Your task to perform on an android device: Clear all items from cart on target. Add "macbook air" to the cart on target Image 0: 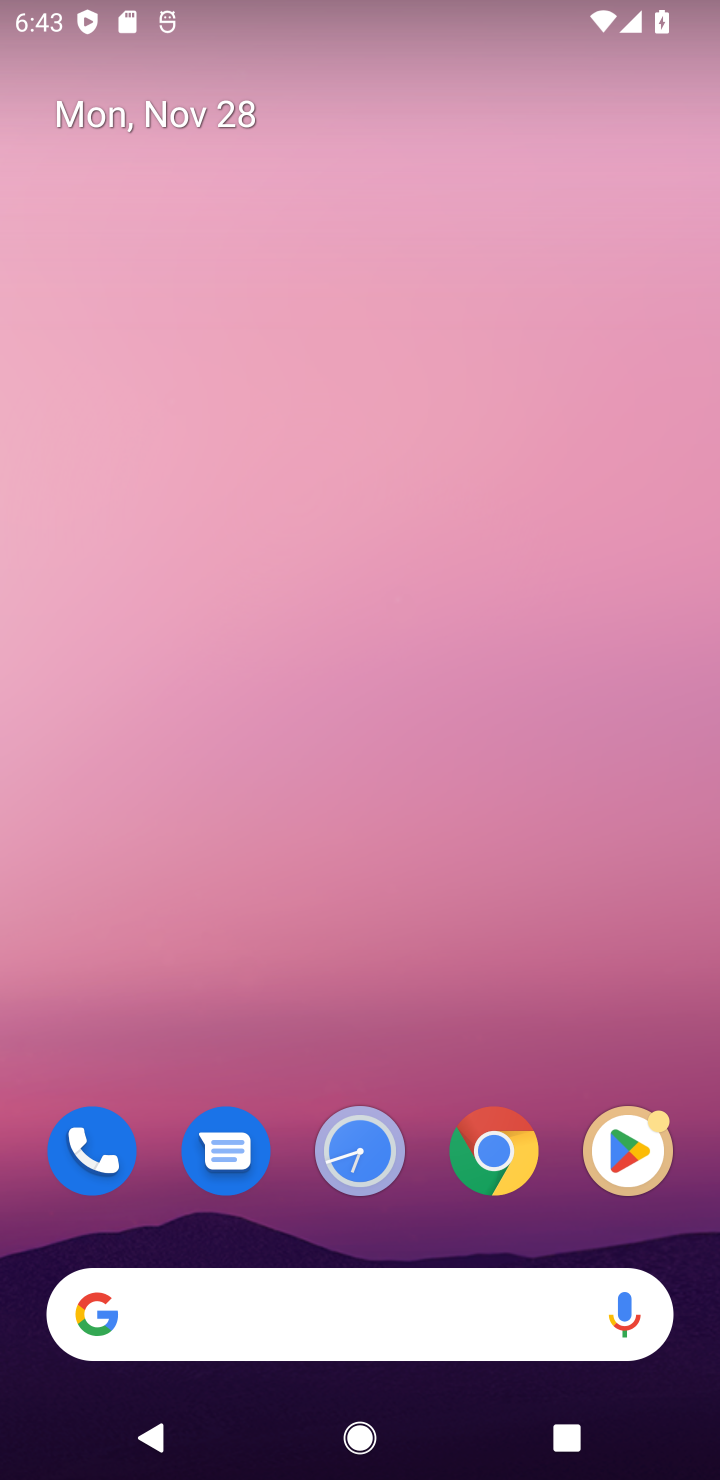
Step 0: click (482, 1304)
Your task to perform on an android device: Clear all items from cart on target. Add "macbook air" to the cart on target Image 1: 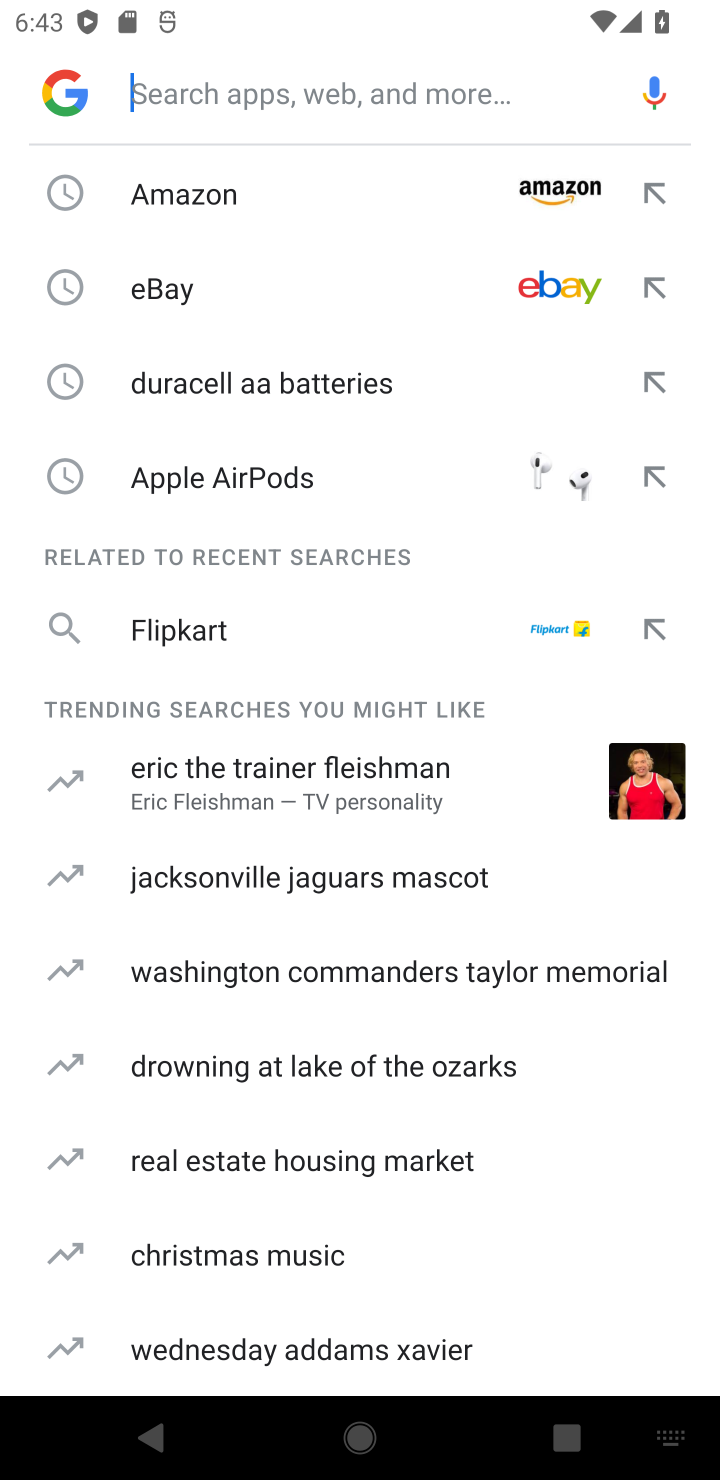
Step 1: type "target.com"
Your task to perform on an android device: Clear all items from cart on target. Add "macbook air" to the cart on target Image 2: 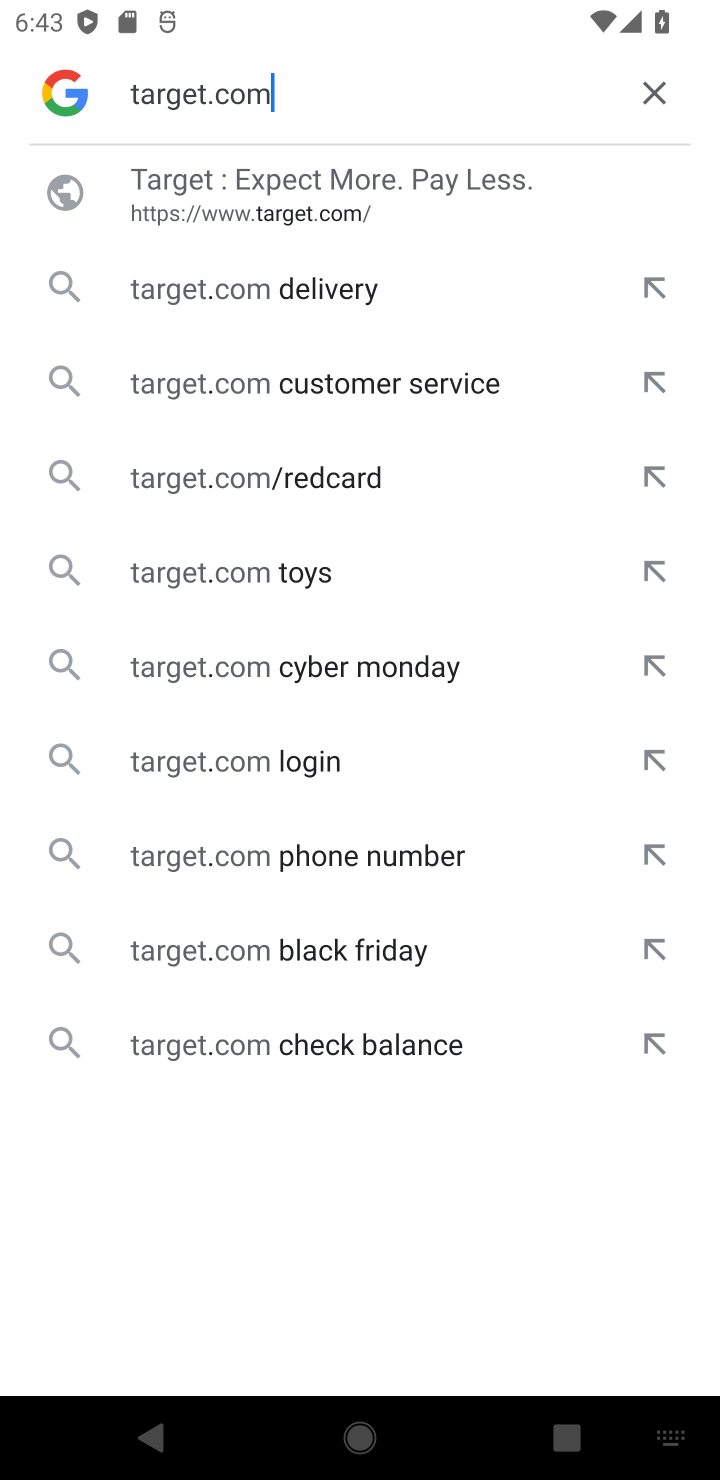
Step 2: click (161, 174)
Your task to perform on an android device: Clear all items from cart on target. Add "macbook air" to the cart on target Image 3: 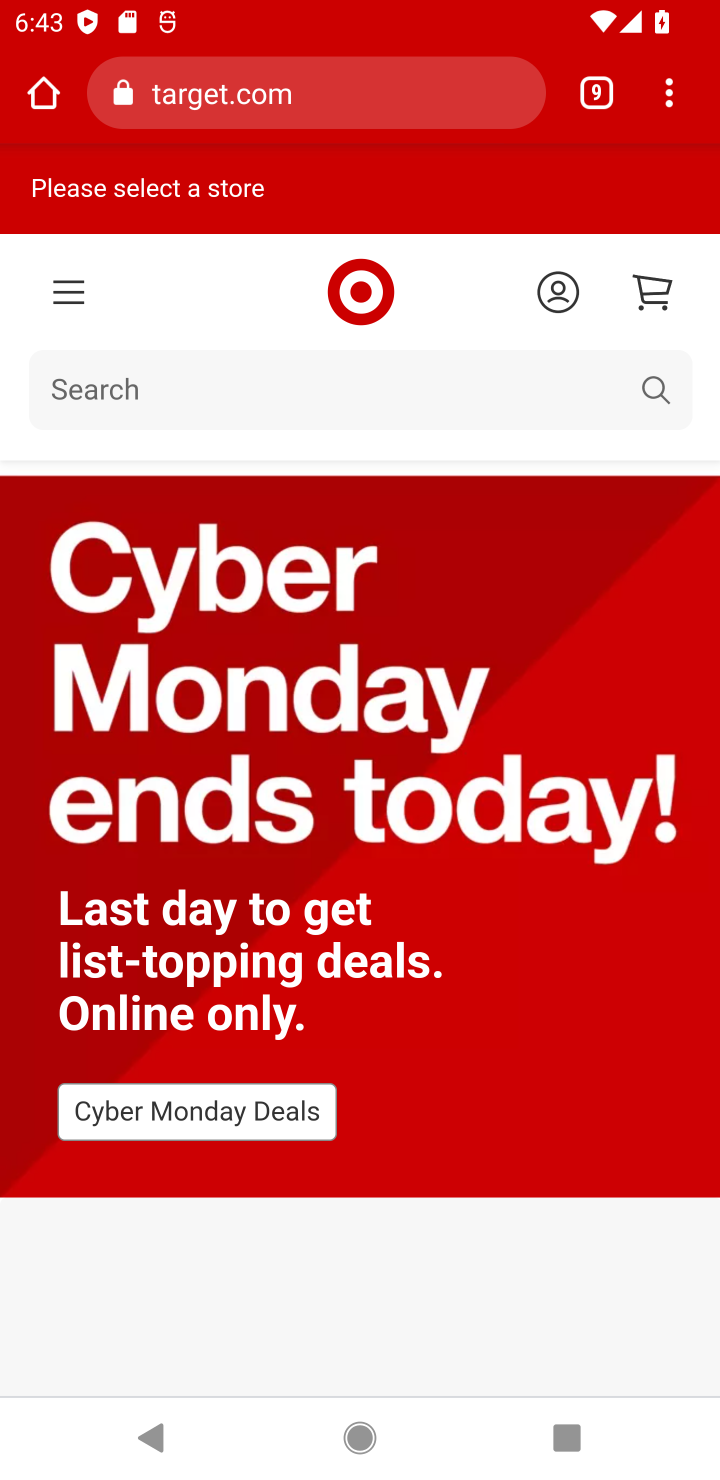
Step 3: click (220, 413)
Your task to perform on an android device: Clear all items from cart on target. Add "macbook air" to the cart on target Image 4: 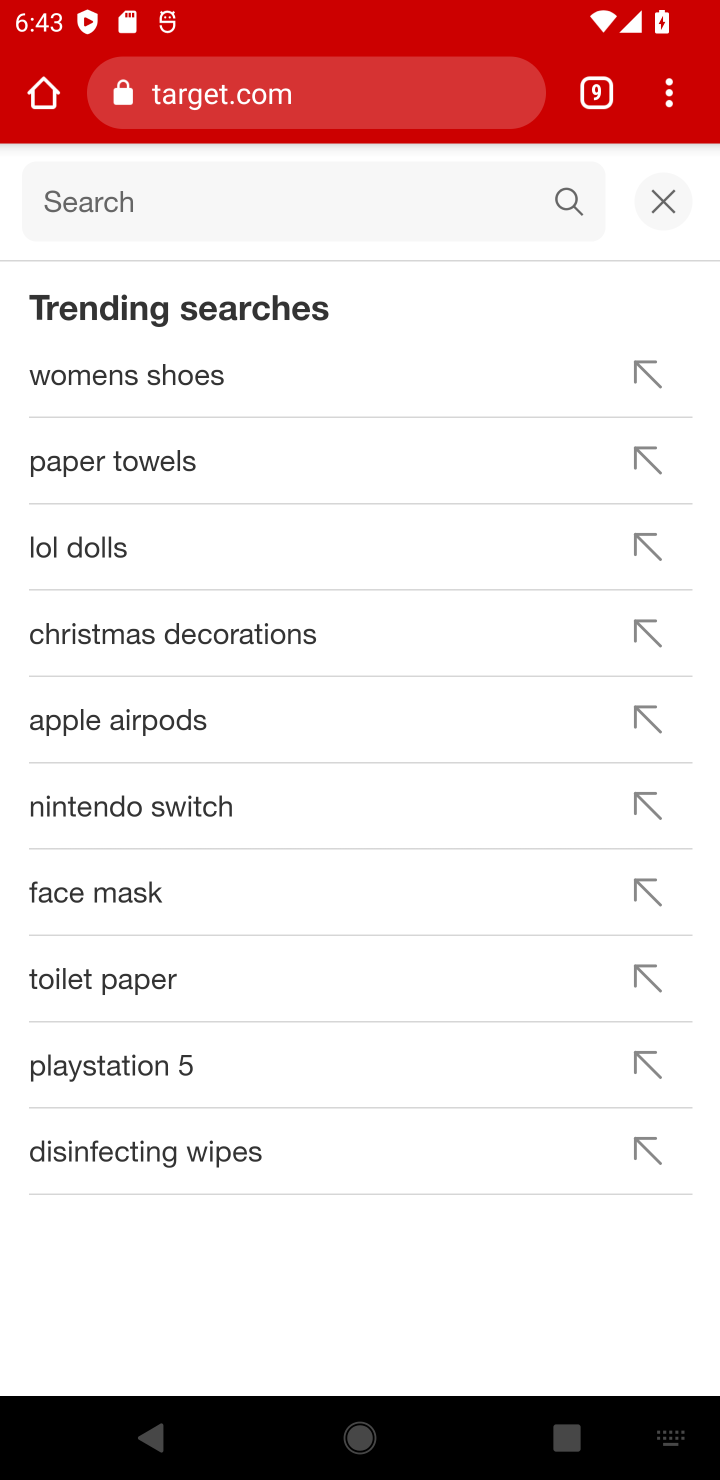
Step 4: type "macbook air"
Your task to perform on an android device: Clear all items from cart on target. Add "macbook air" to the cart on target Image 5: 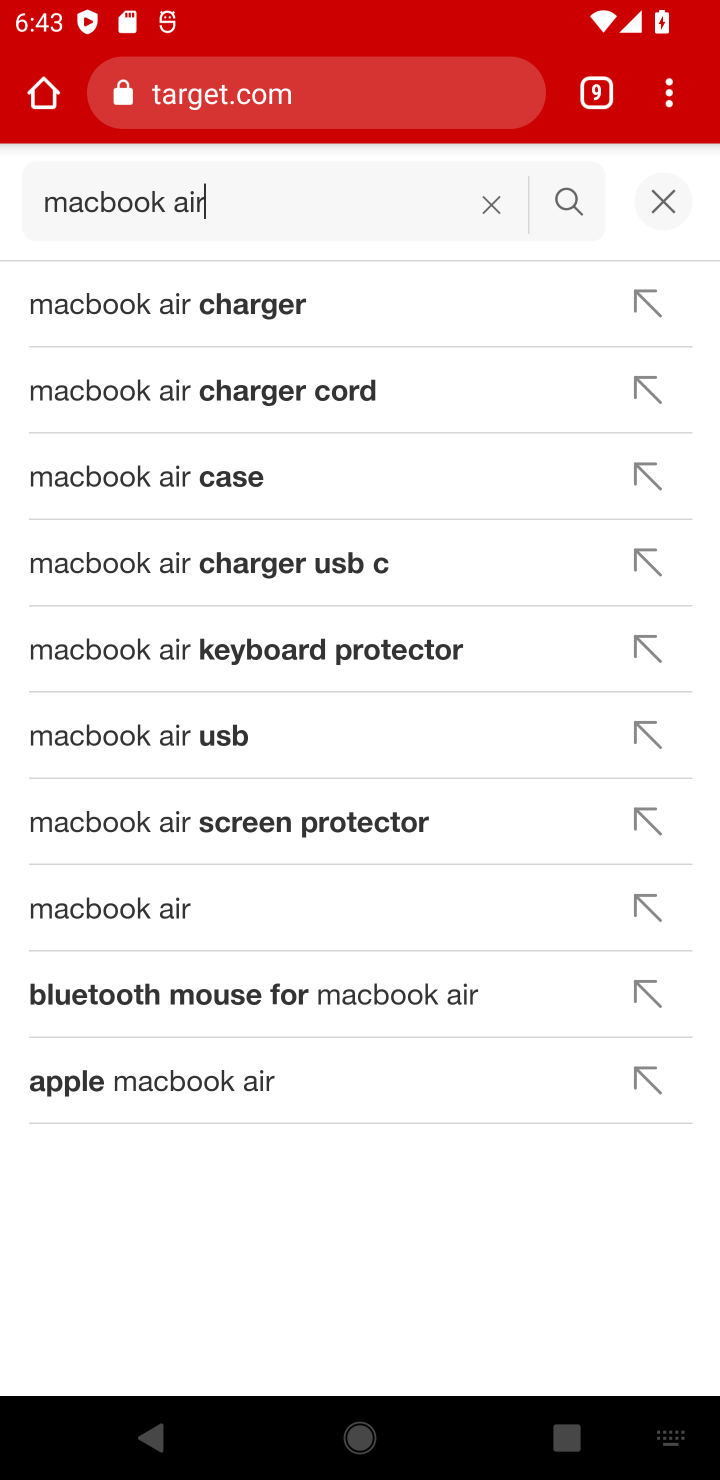
Step 5: click (564, 214)
Your task to perform on an android device: Clear all items from cart on target. Add "macbook air" to the cart on target Image 6: 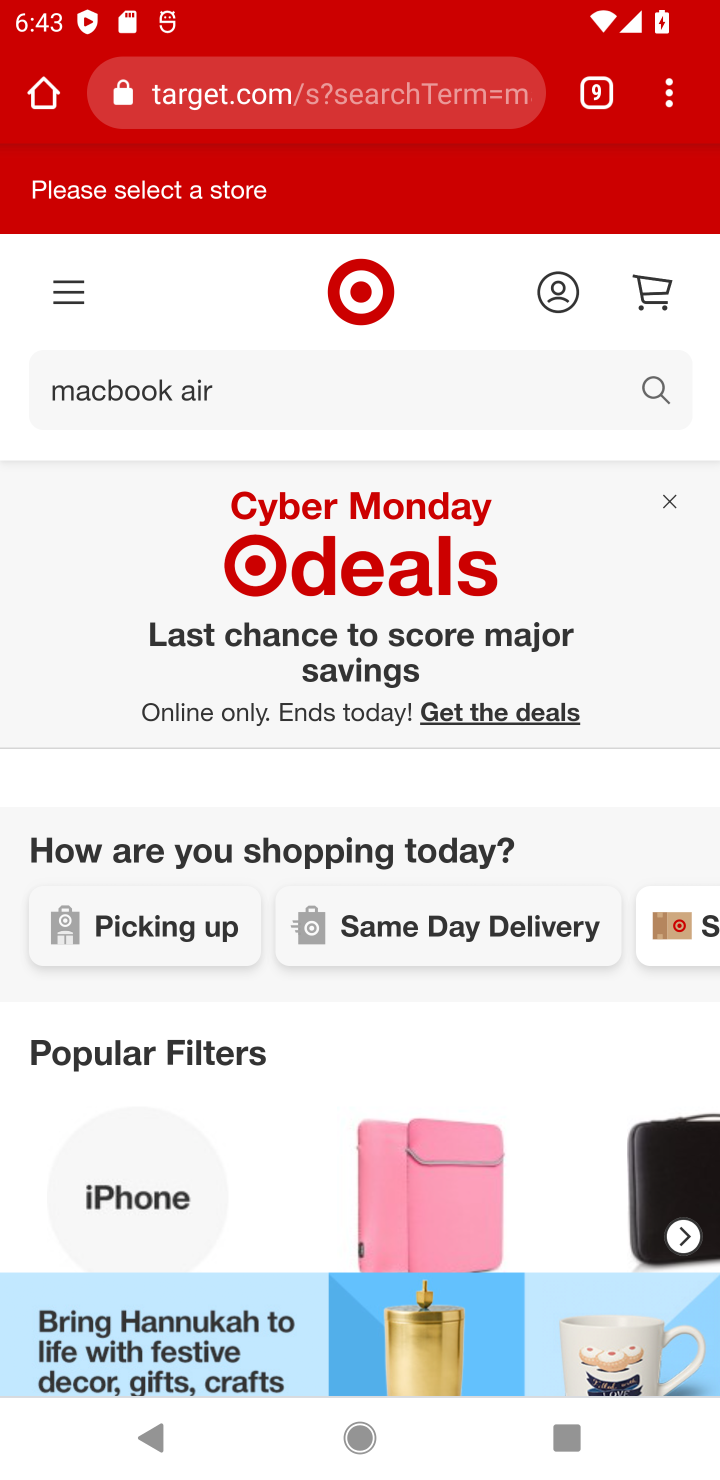
Step 6: click (664, 500)
Your task to perform on an android device: Clear all items from cart on target. Add "macbook air" to the cart on target Image 7: 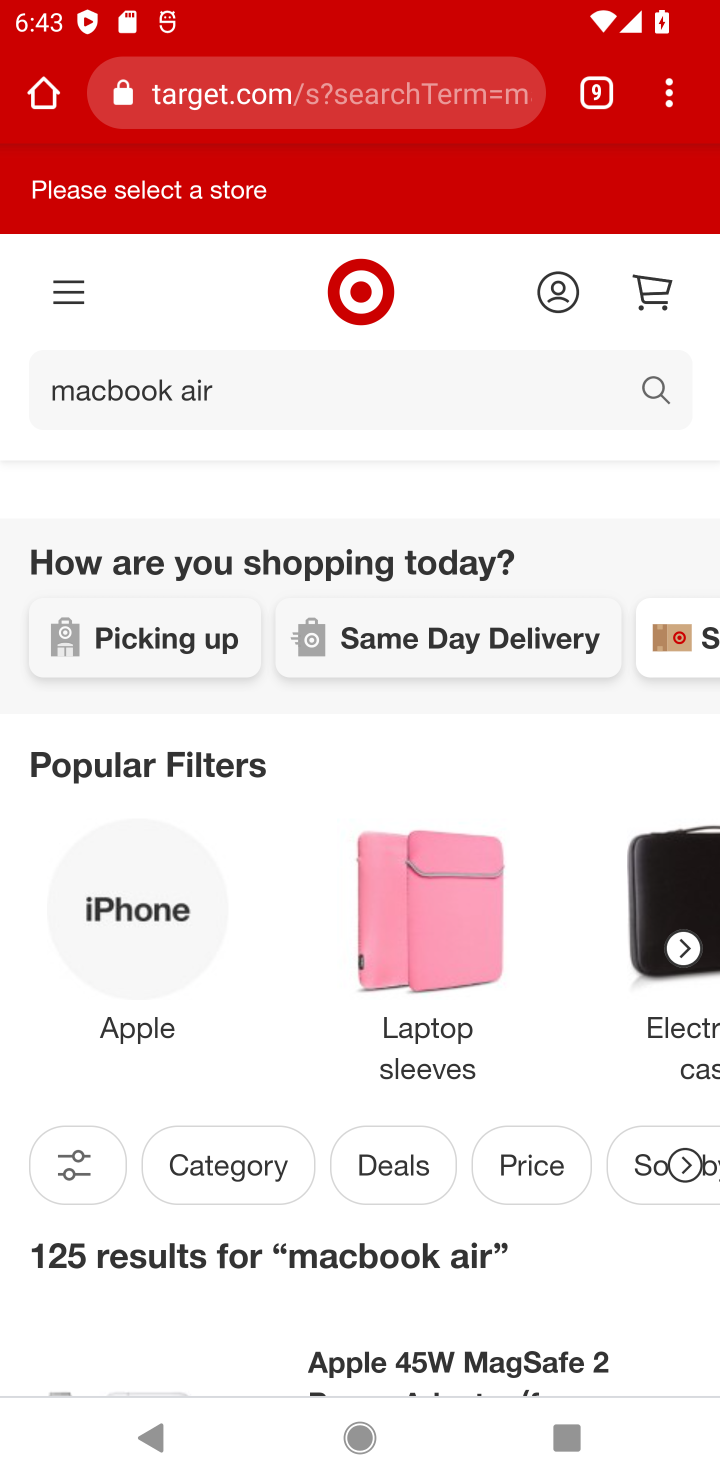
Step 7: task complete